Your task to perform on an android device: set an alarm Image 0: 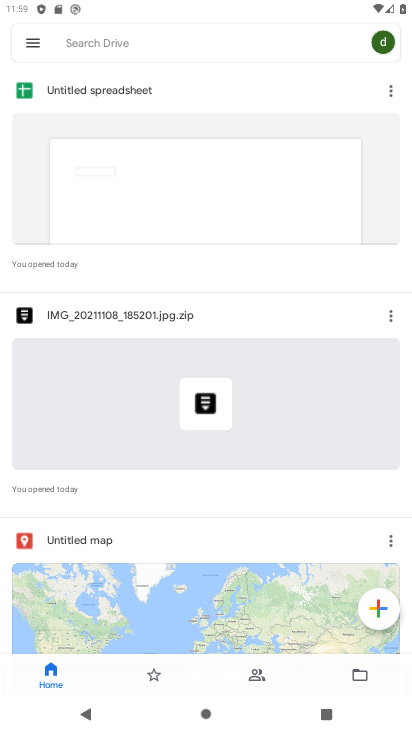
Step 0: press home button
Your task to perform on an android device: set an alarm Image 1: 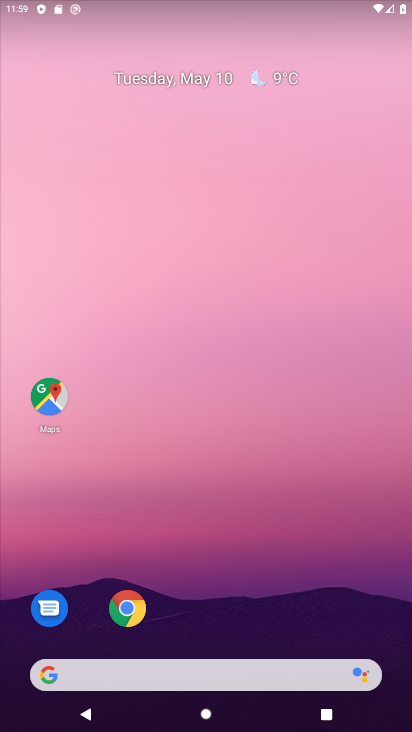
Step 1: drag from (241, 638) to (274, 247)
Your task to perform on an android device: set an alarm Image 2: 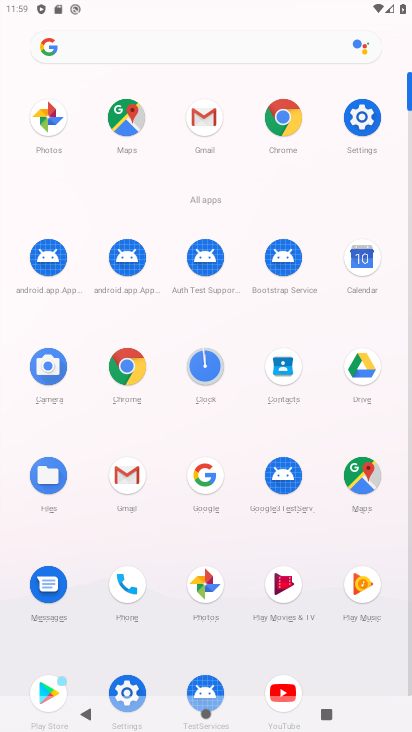
Step 2: click (215, 383)
Your task to perform on an android device: set an alarm Image 3: 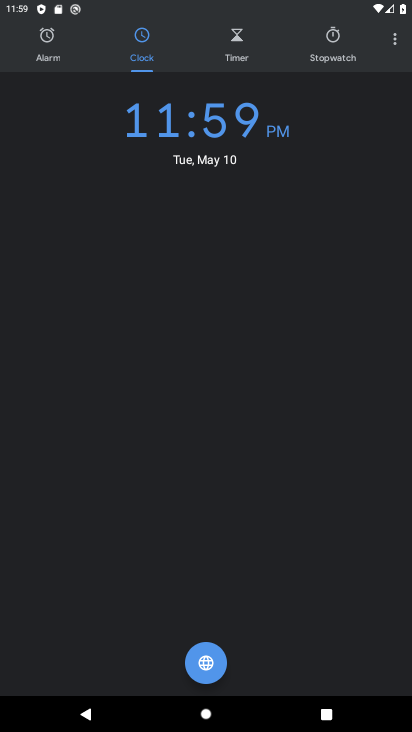
Step 3: click (59, 58)
Your task to perform on an android device: set an alarm Image 4: 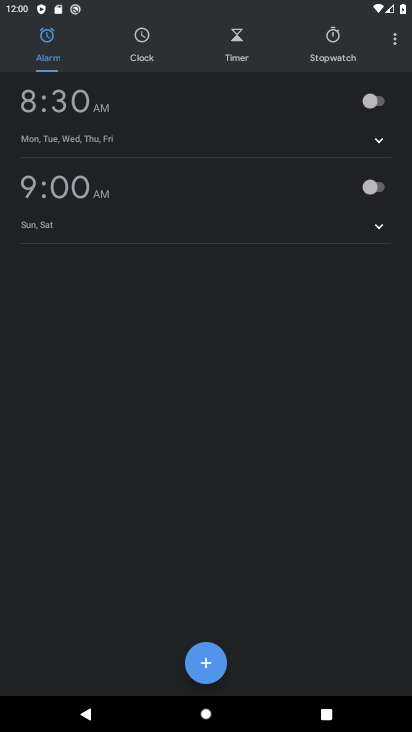
Step 4: click (210, 659)
Your task to perform on an android device: set an alarm Image 5: 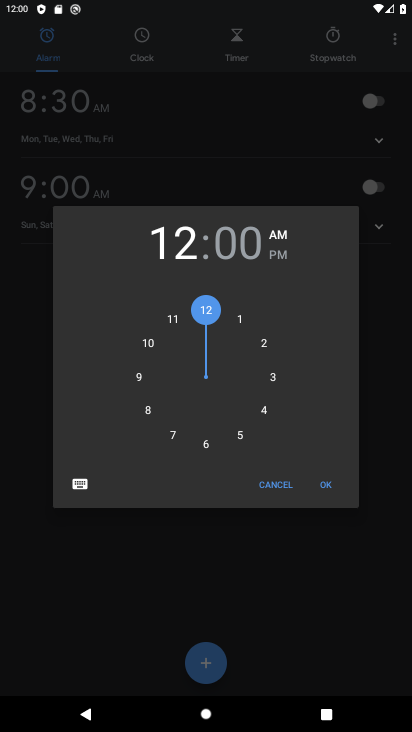
Step 5: click (320, 494)
Your task to perform on an android device: set an alarm Image 6: 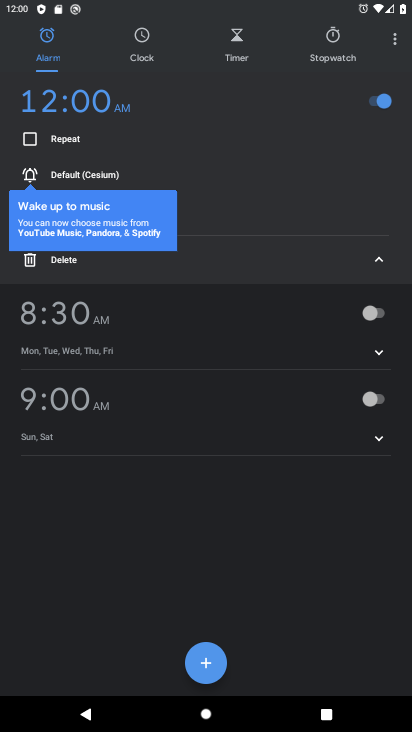
Step 6: task complete